Your task to perform on an android device: see tabs open on other devices in the chrome app Image 0: 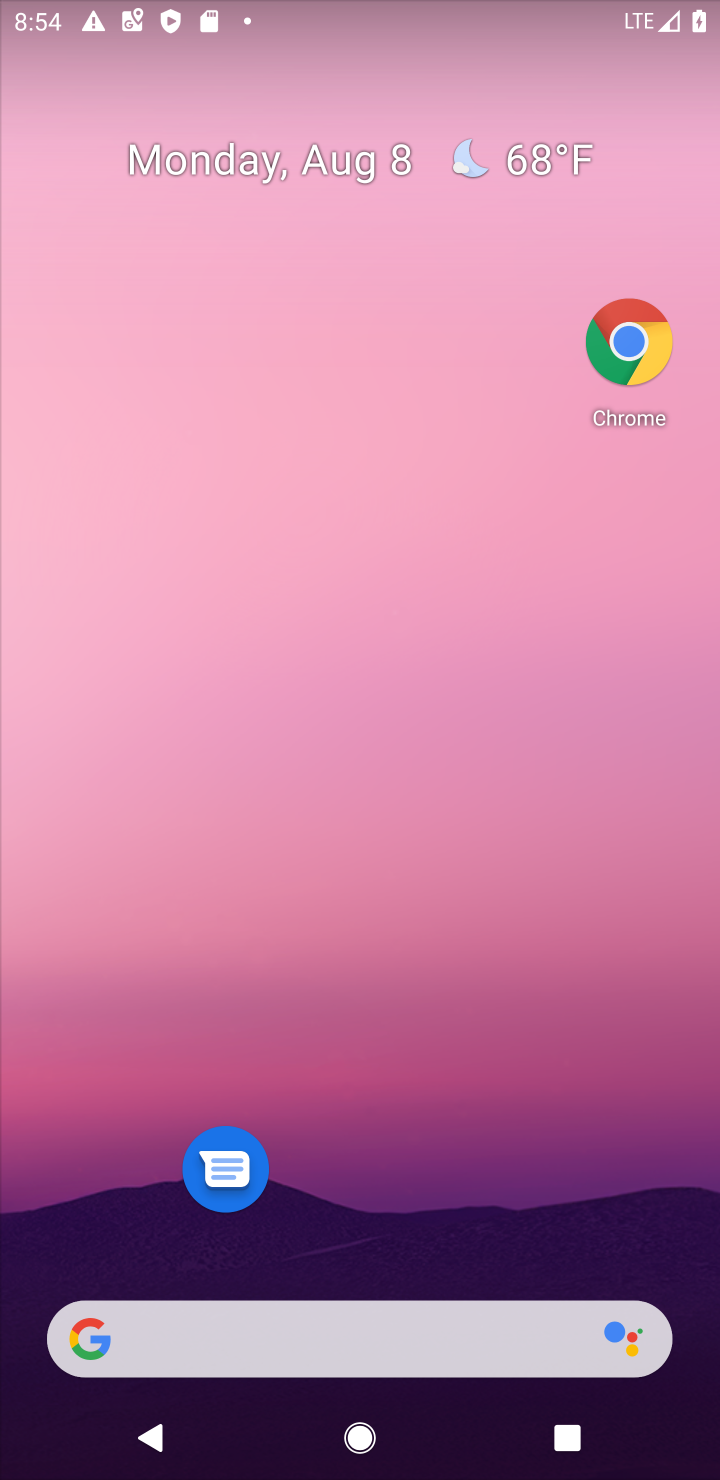
Step 0: click (608, 347)
Your task to perform on an android device: see tabs open on other devices in the chrome app Image 1: 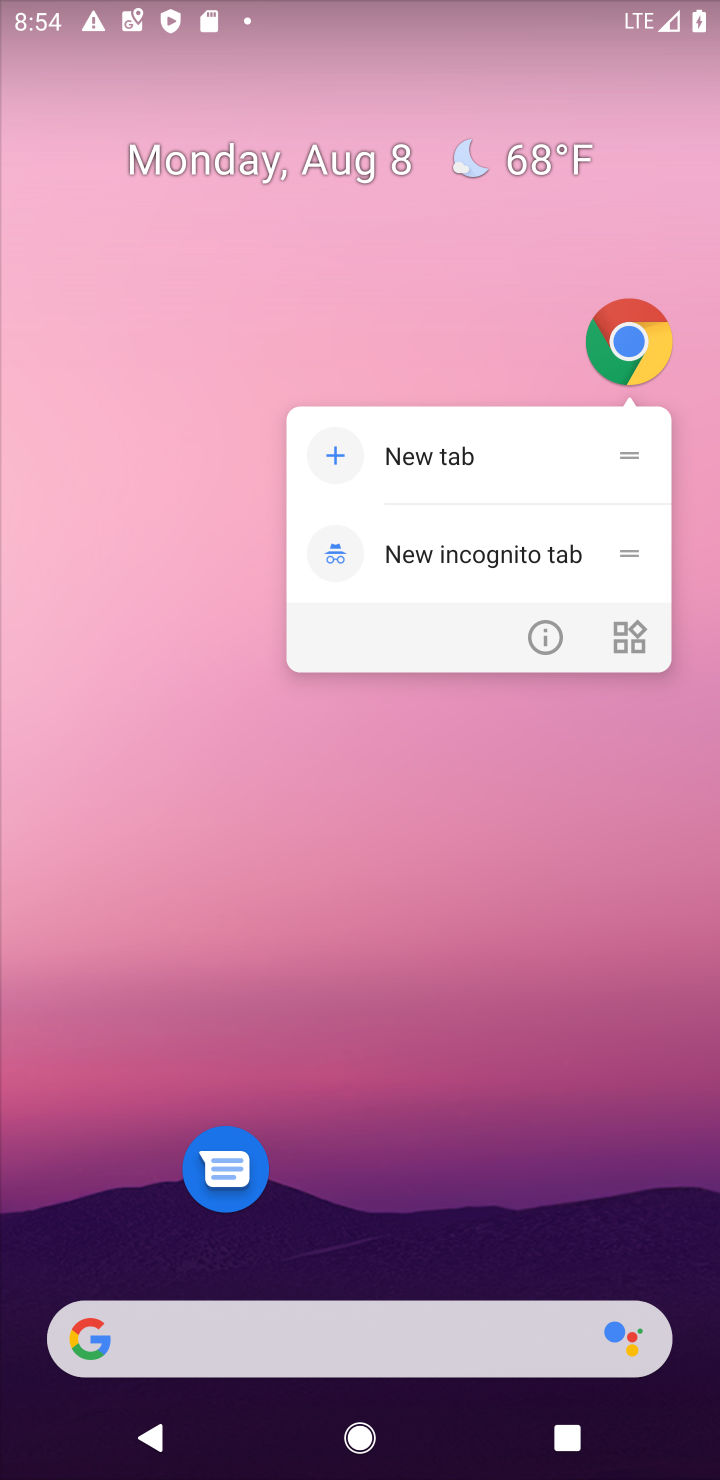
Step 1: click (609, 363)
Your task to perform on an android device: see tabs open on other devices in the chrome app Image 2: 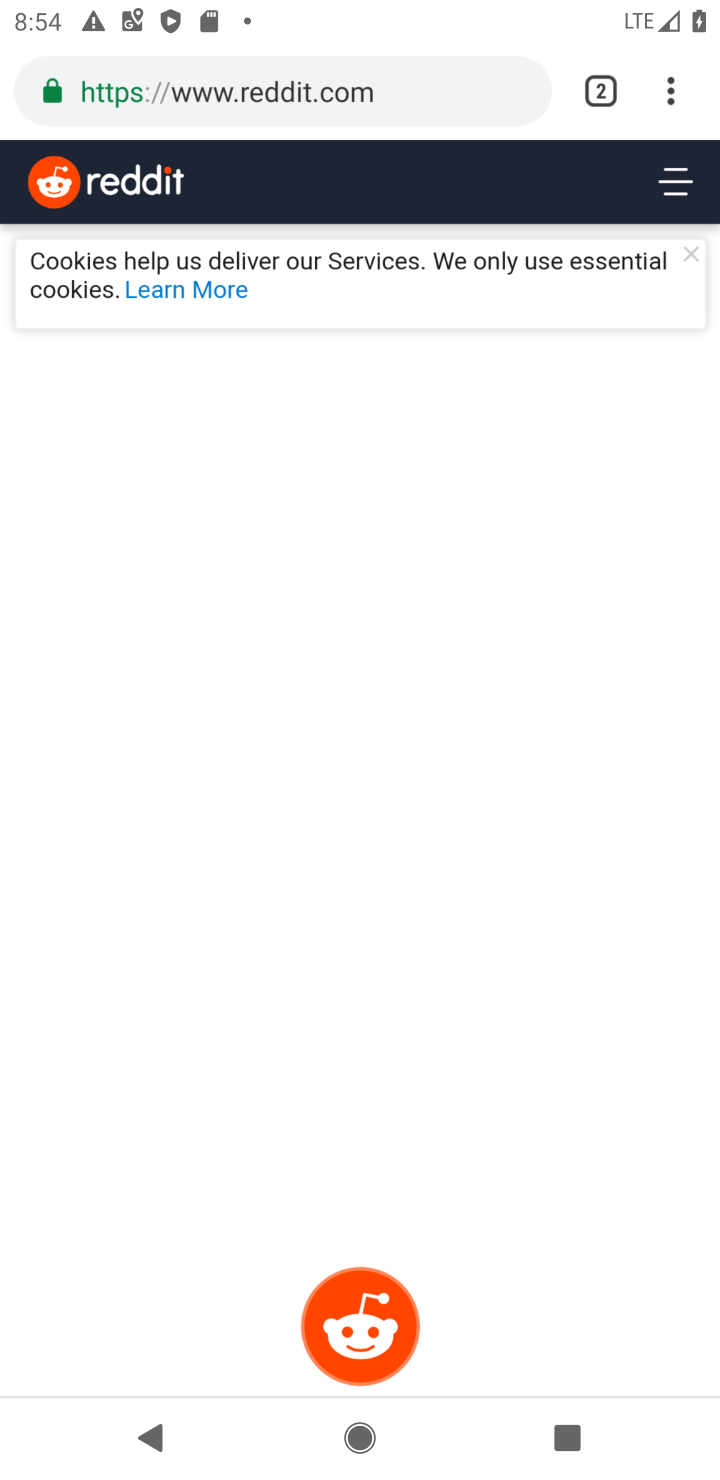
Step 2: task complete